Your task to perform on an android device: Open location settings Image 0: 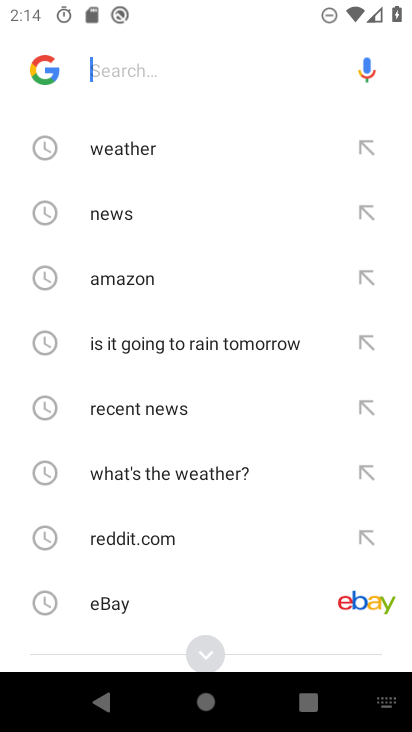
Step 0: press home button
Your task to perform on an android device: Open location settings Image 1: 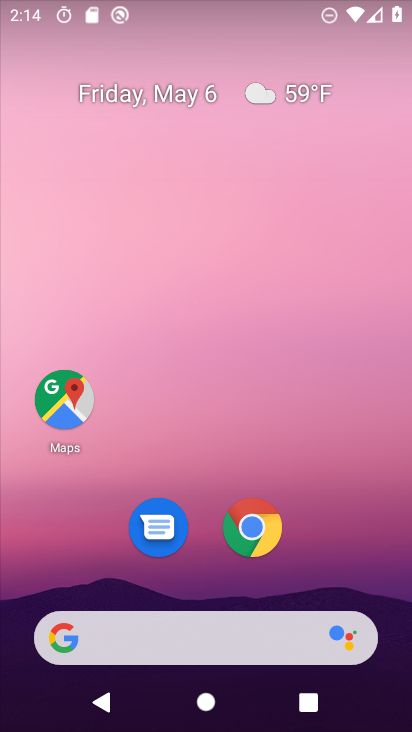
Step 1: drag from (328, 513) to (97, 96)
Your task to perform on an android device: Open location settings Image 2: 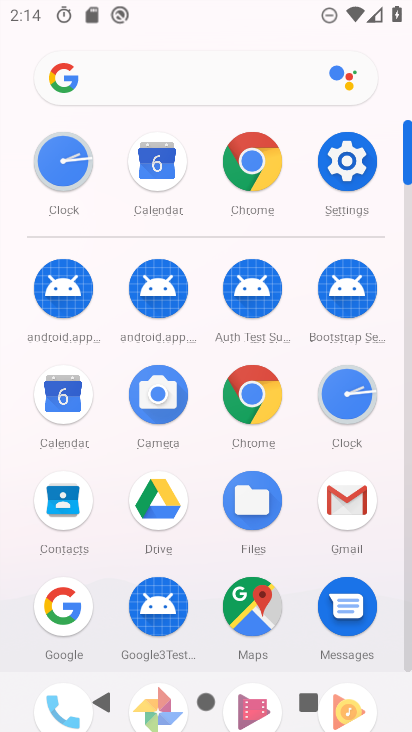
Step 2: click (333, 164)
Your task to perform on an android device: Open location settings Image 3: 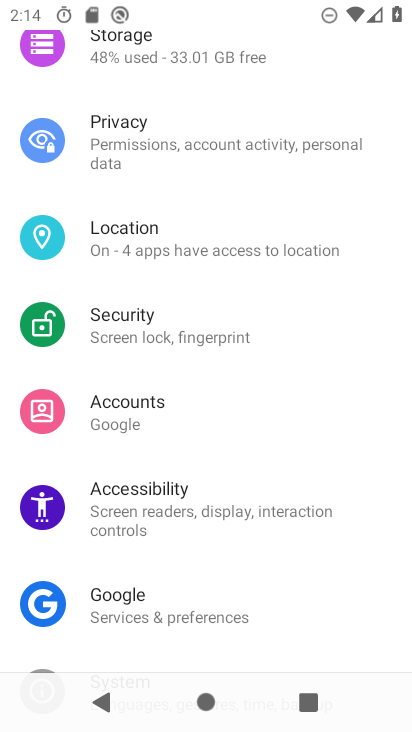
Step 3: click (150, 241)
Your task to perform on an android device: Open location settings Image 4: 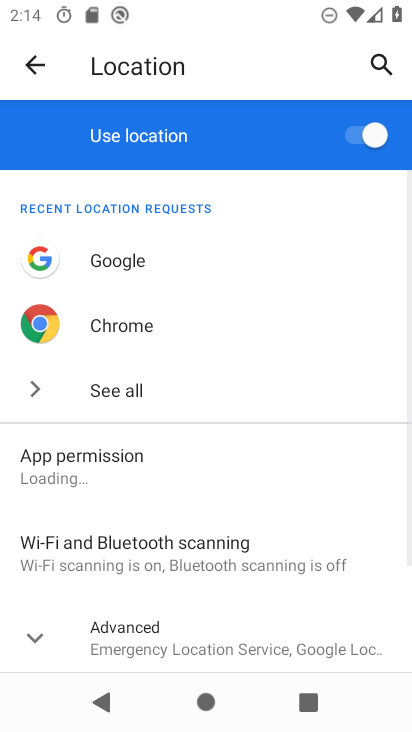
Step 4: drag from (82, 641) to (124, 247)
Your task to perform on an android device: Open location settings Image 5: 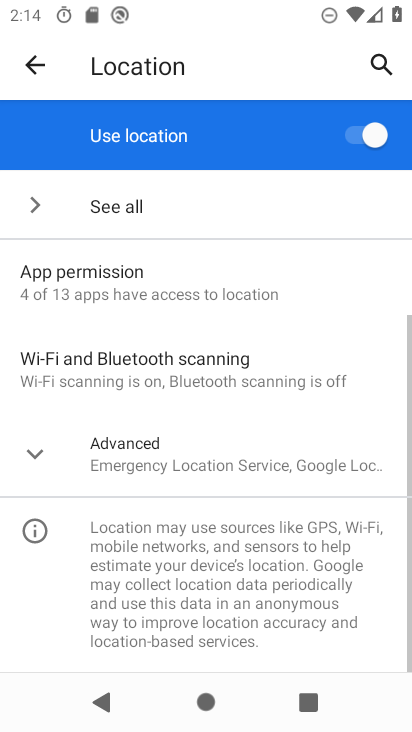
Step 5: click (29, 459)
Your task to perform on an android device: Open location settings Image 6: 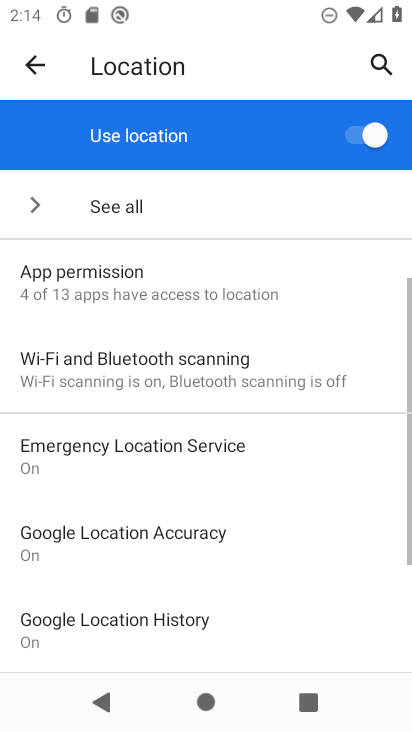
Step 6: task complete